Your task to perform on an android device: turn off wifi Image 0: 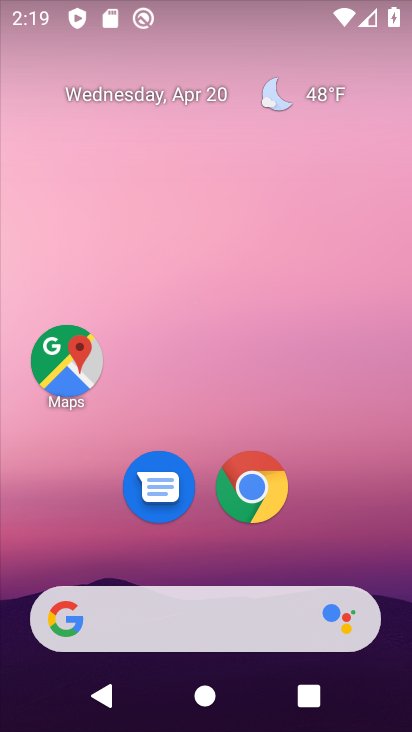
Step 0: drag from (226, 577) to (224, 157)
Your task to perform on an android device: turn off wifi Image 1: 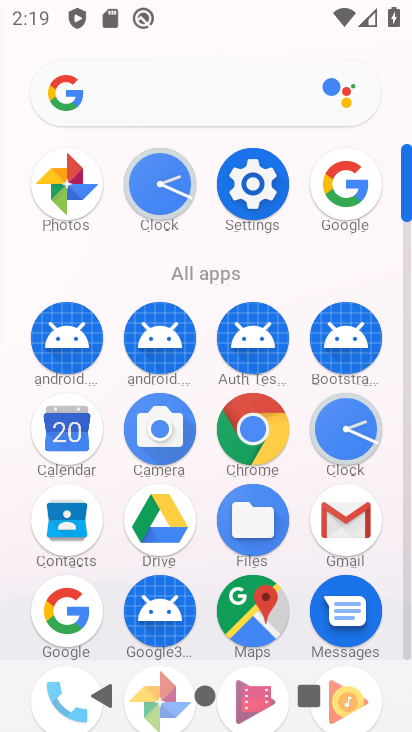
Step 1: click (258, 185)
Your task to perform on an android device: turn off wifi Image 2: 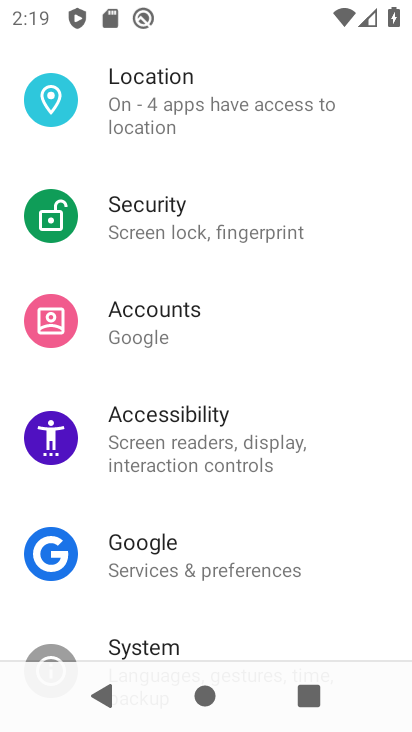
Step 2: drag from (234, 123) to (234, 556)
Your task to perform on an android device: turn off wifi Image 3: 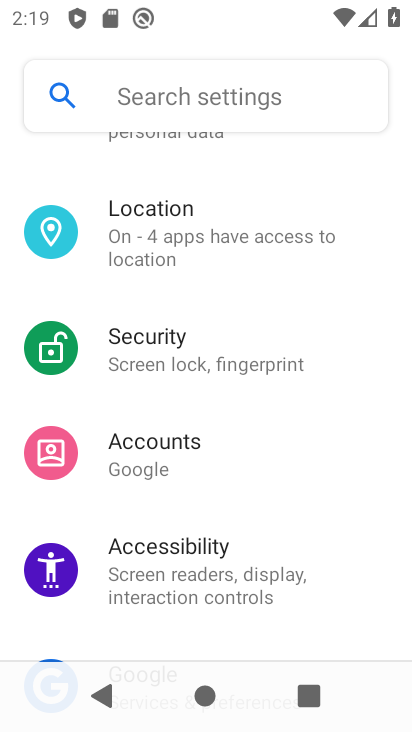
Step 3: drag from (259, 193) to (219, 614)
Your task to perform on an android device: turn off wifi Image 4: 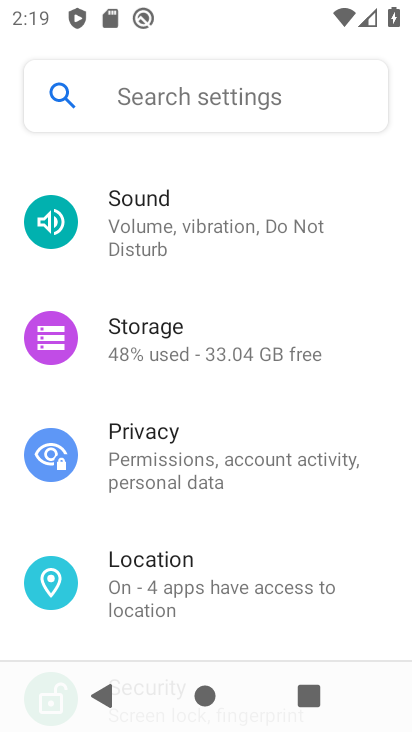
Step 4: drag from (244, 190) to (244, 568)
Your task to perform on an android device: turn off wifi Image 5: 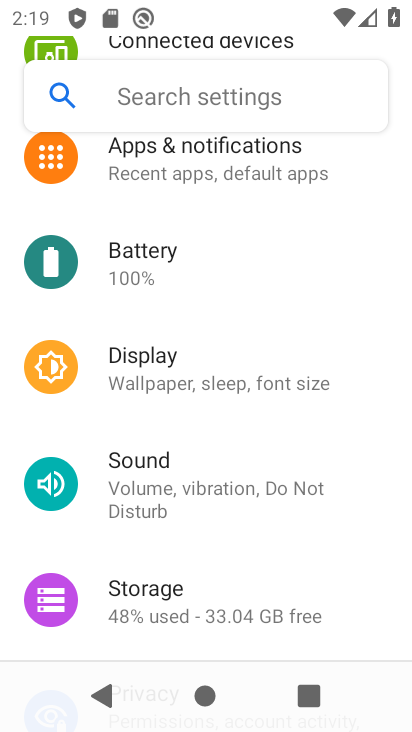
Step 5: drag from (237, 157) to (246, 514)
Your task to perform on an android device: turn off wifi Image 6: 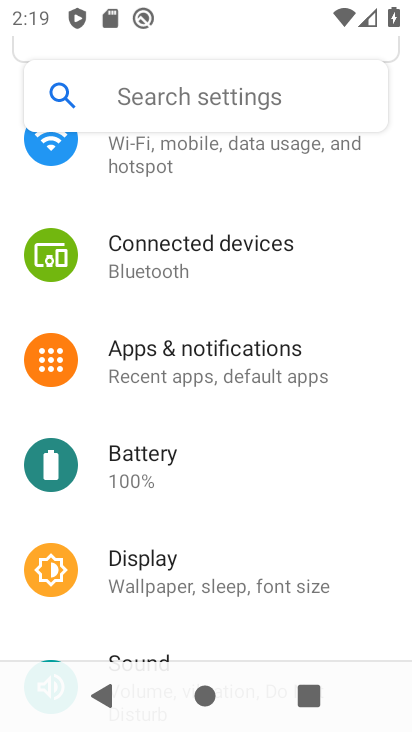
Step 6: click (213, 147)
Your task to perform on an android device: turn off wifi Image 7: 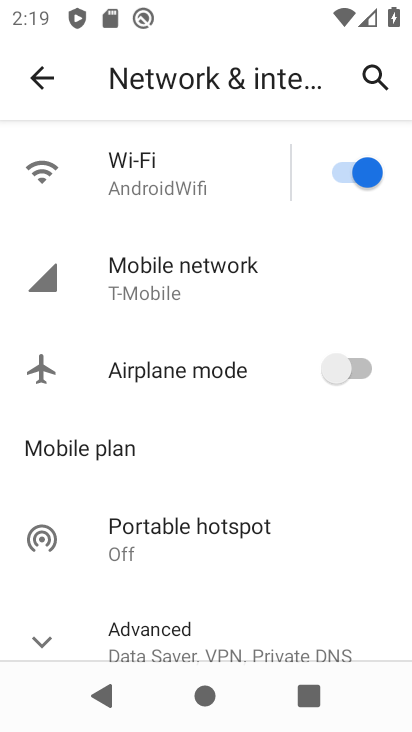
Step 7: click (341, 170)
Your task to perform on an android device: turn off wifi Image 8: 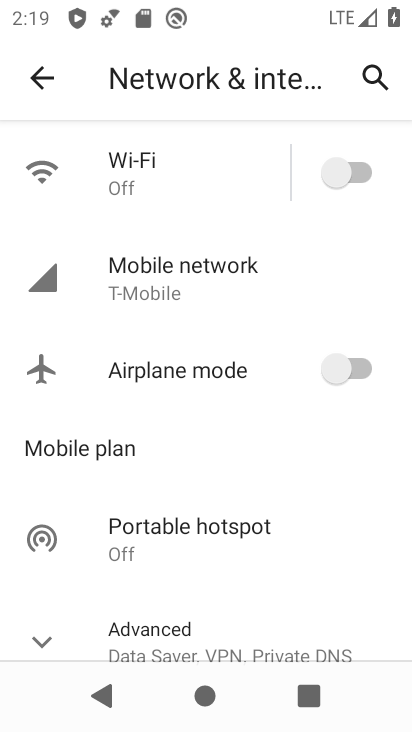
Step 8: task complete